Your task to perform on an android device: turn notification dots off Image 0: 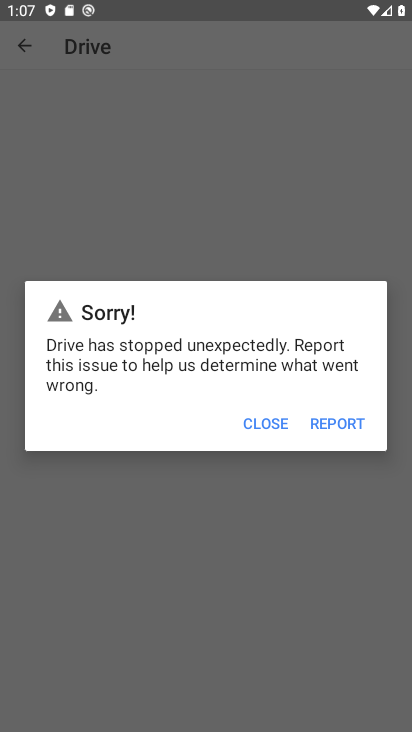
Step 0: press back button
Your task to perform on an android device: turn notification dots off Image 1: 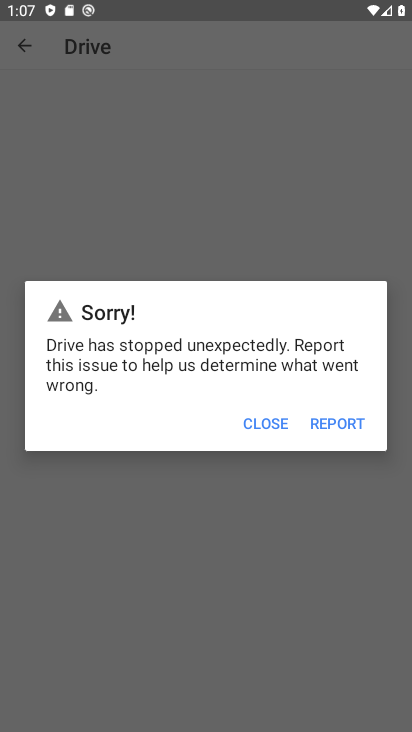
Step 1: press home button
Your task to perform on an android device: turn notification dots off Image 2: 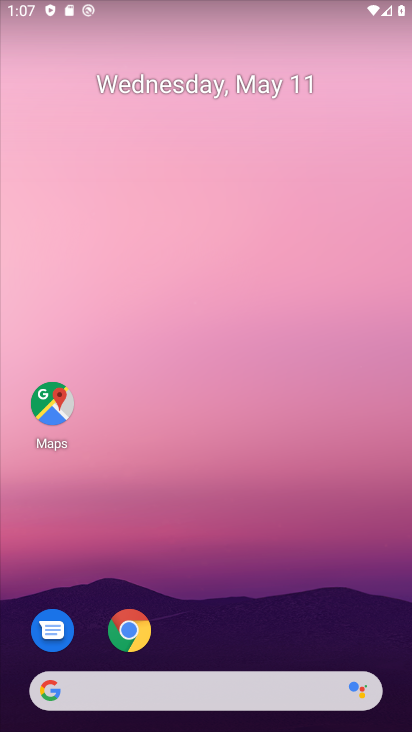
Step 2: drag from (168, 623) to (249, 148)
Your task to perform on an android device: turn notification dots off Image 3: 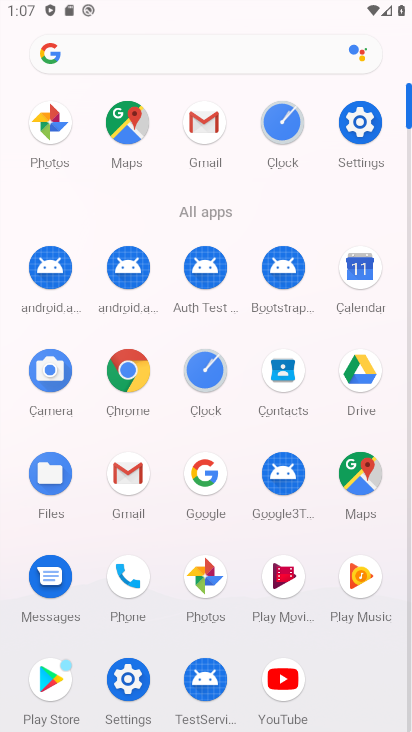
Step 3: drag from (141, 657) to (174, 483)
Your task to perform on an android device: turn notification dots off Image 4: 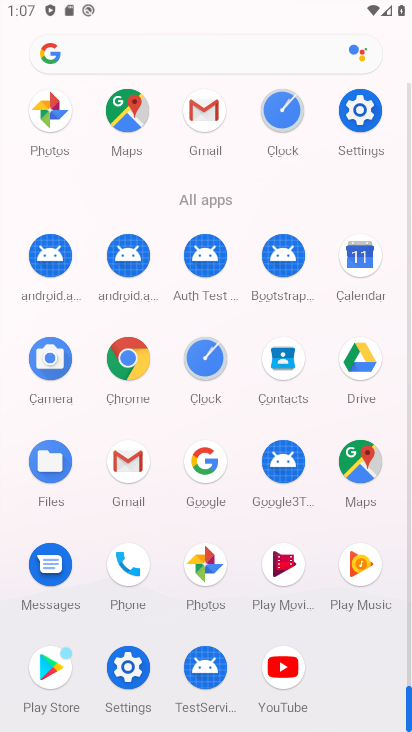
Step 4: click (131, 674)
Your task to perform on an android device: turn notification dots off Image 5: 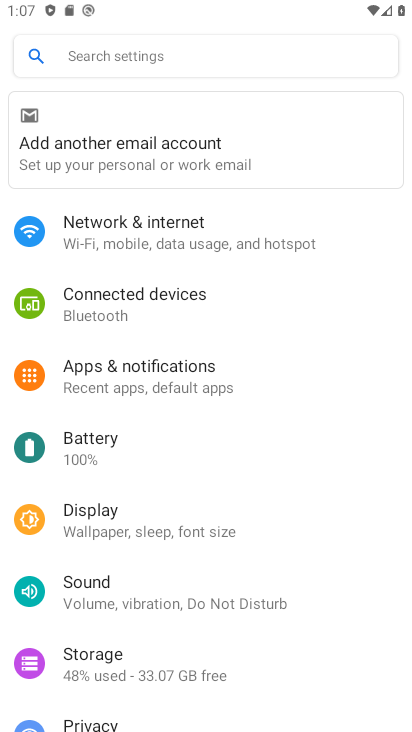
Step 5: click (165, 361)
Your task to perform on an android device: turn notification dots off Image 6: 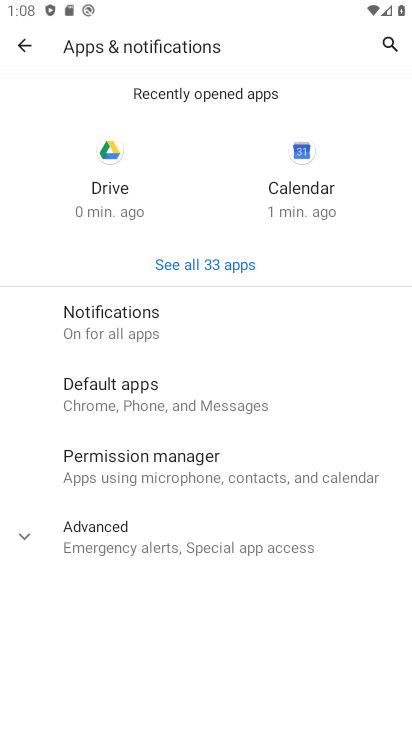
Step 6: click (195, 341)
Your task to perform on an android device: turn notification dots off Image 7: 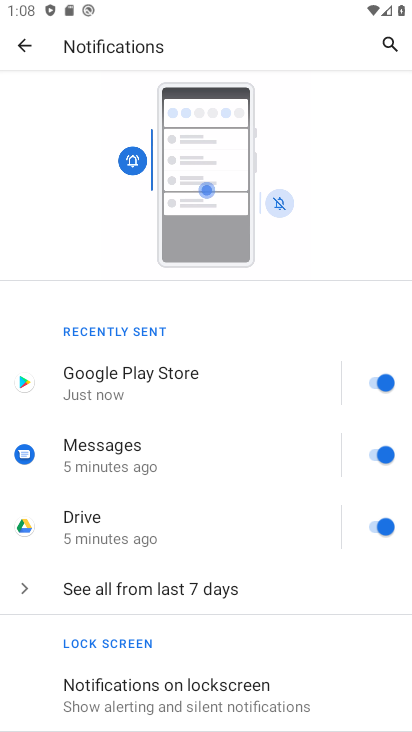
Step 7: drag from (155, 689) to (253, 300)
Your task to perform on an android device: turn notification dots off Image 8: 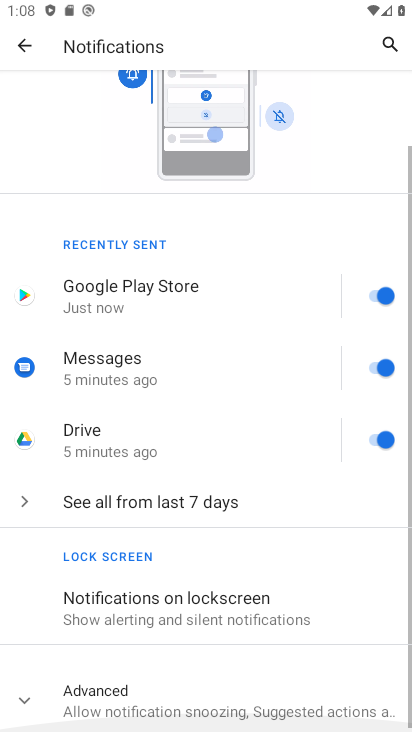
Step 8: click (174, 710)
Your task to perform on an android device: turn notification dots off Image 9: 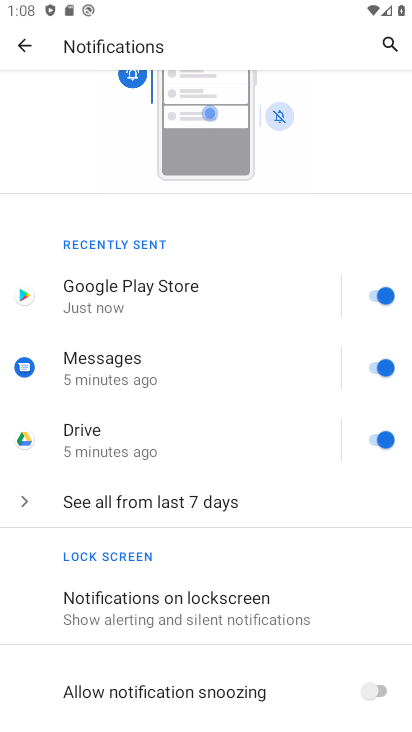
Step 9: drag from (141, 645) to (234, 276)
Your task to perform on an android device: turn notification dots off Image 10: 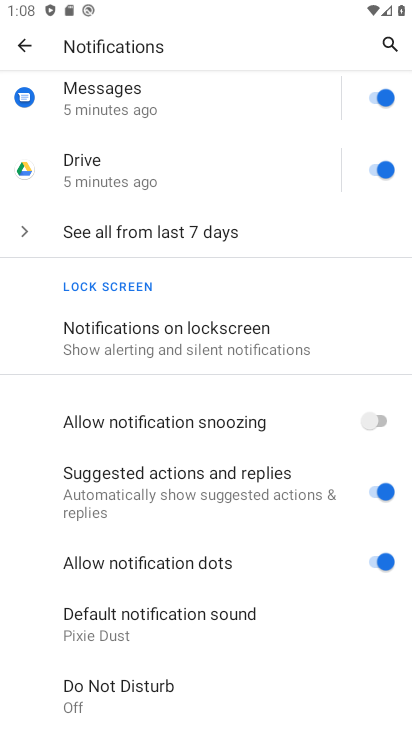
Step 10: click (367, 562)
Your task to perform on an android device: turn notification dots off Image 11: 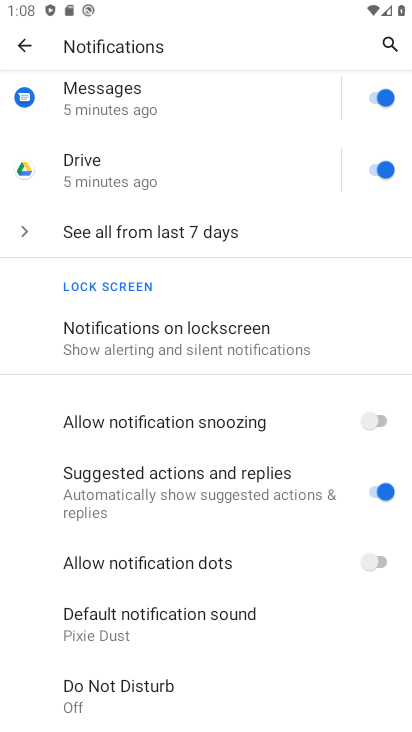
Step 11: task complete